Your task to perform on an android device: What's US dollar exchange rate against the Japanese Yen? Image 0: 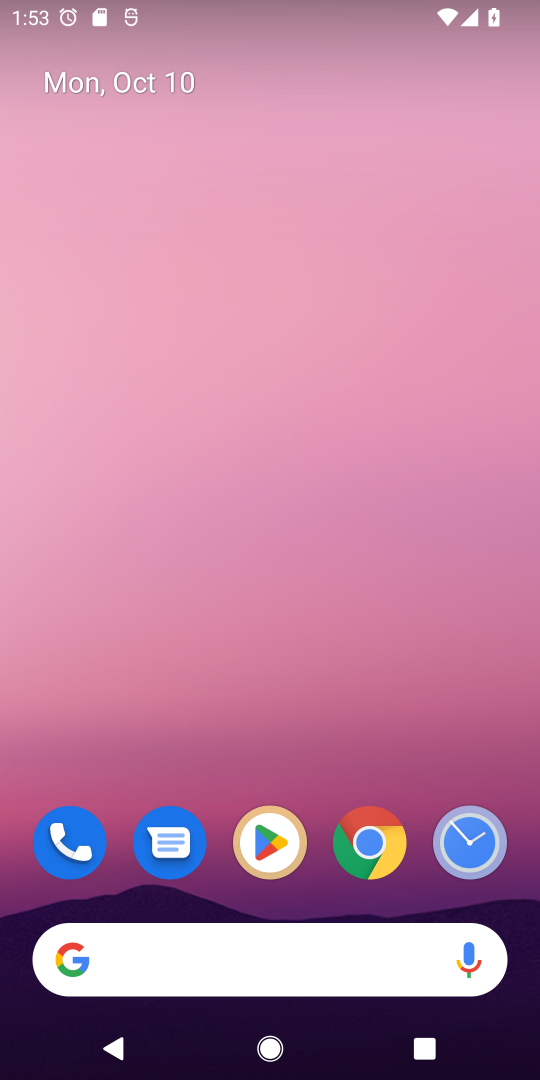
Step 0: click (376, 863)
Your task to perform on an android device: What's US dollar exchange rate against the Japanese Yen? Image 1: 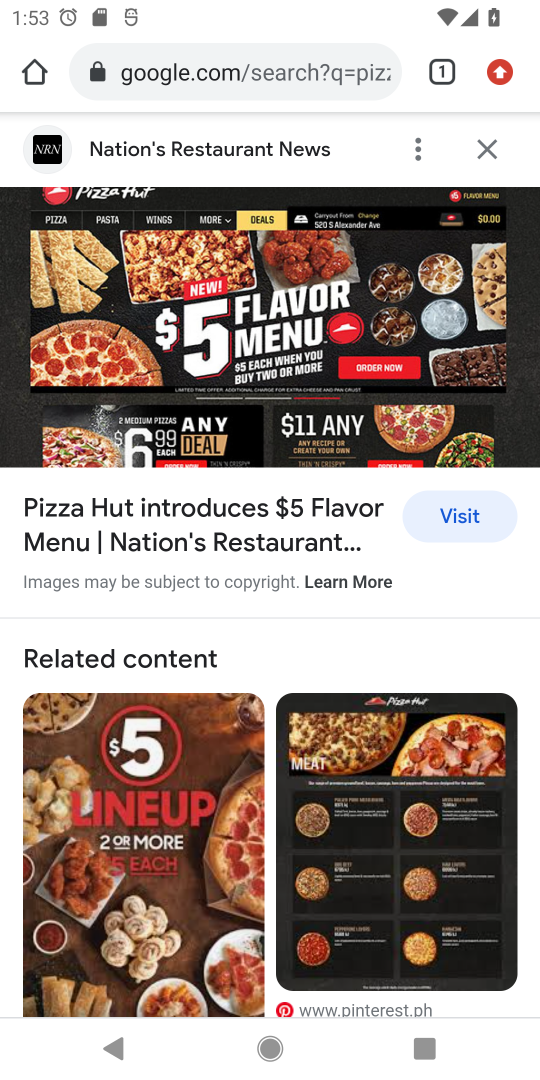
Step 1: click (229, 50)
Your task to perform on an android device: What's US dollar exchange rate against the Japanese Yen? Image 2: 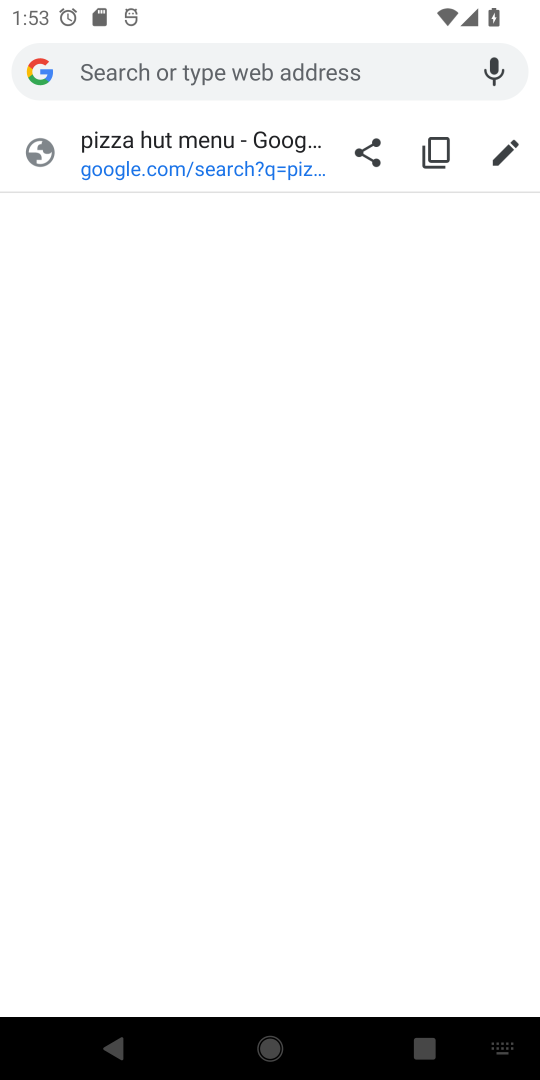
Step 2: type "us dollar exchange rate against japanese yen"
Your task to perform on an android device: What's US dollar exchange rate against the Japanese Yen? Image 3: 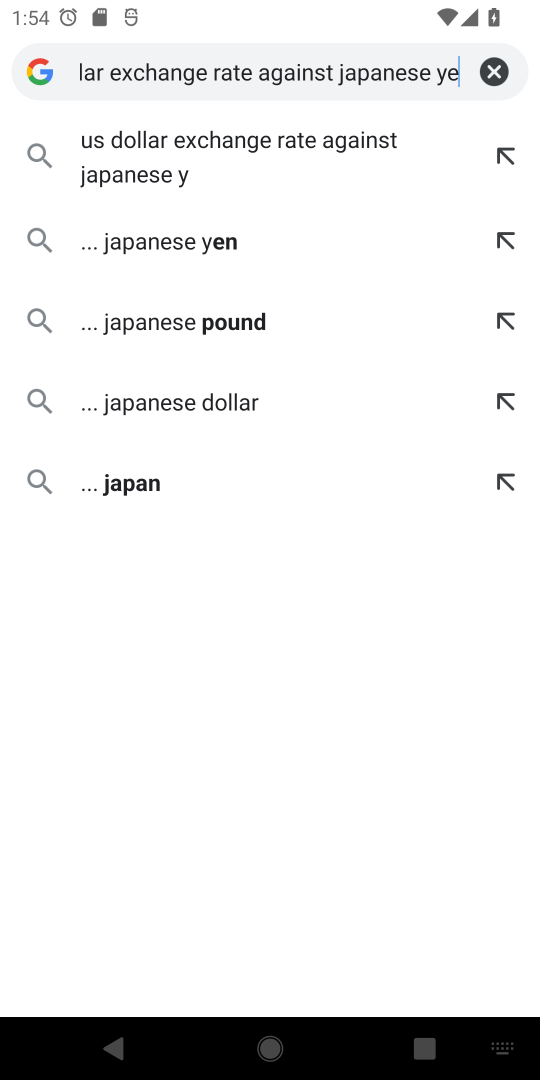
Step 3: press enter
Your task to perform on an android device: What's US dollar exchange rate against the Japanese Yen? Image 4: 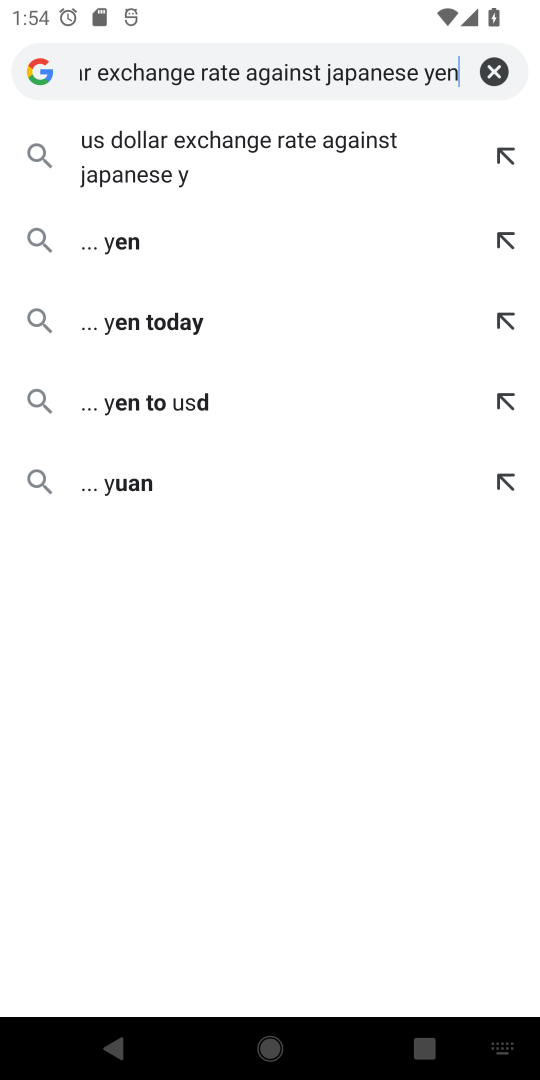
Step 4: type ""
Your task to perform on an android device: What's US dollar exchange rate against the Japanese Yen? Image 5: 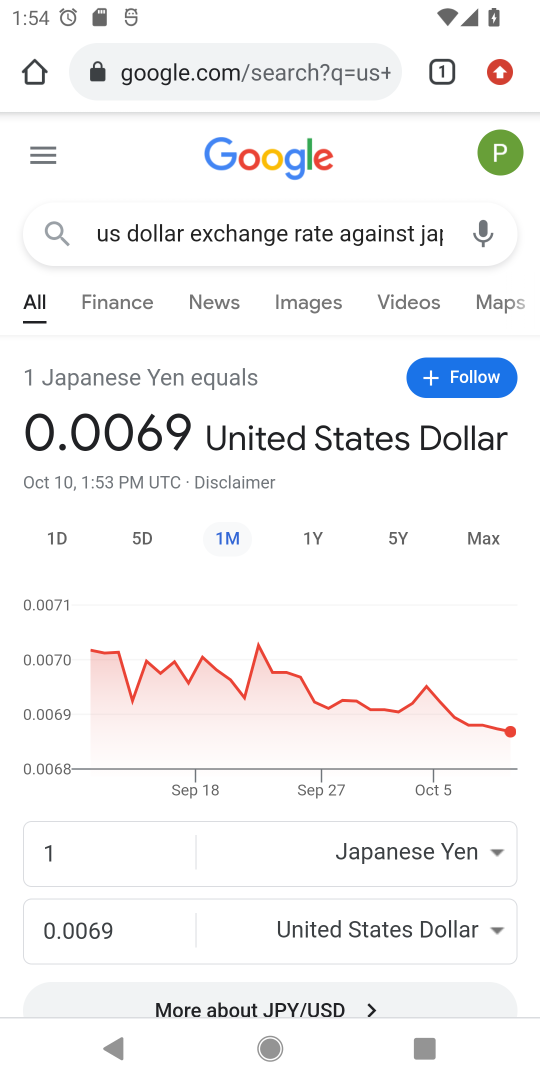
Step 5: task complete